Your task to perform on an android device: Open Google Maps and go to "Timeline" Image 0: 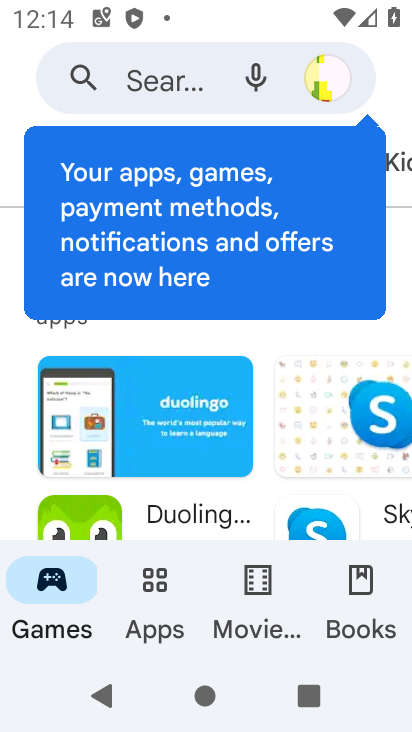
Step 0: press home button
Your task to perform on an android device: Open Google Maps and go to "Timeline" Image 1: 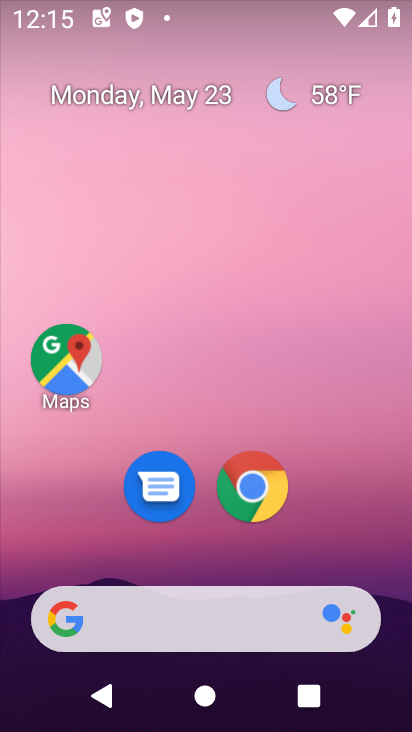
Step 1: click (68, 355)
Your task to perform on an android device: Open Google Maps and go to "Timeline" Image 2: 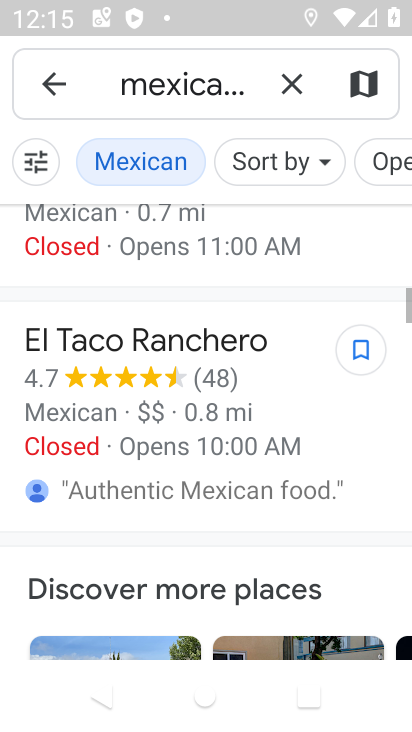
Step 2: click (291, 80)
Your task to perform on an android device: Open Google Maps and go to "Timeline" Image 3: 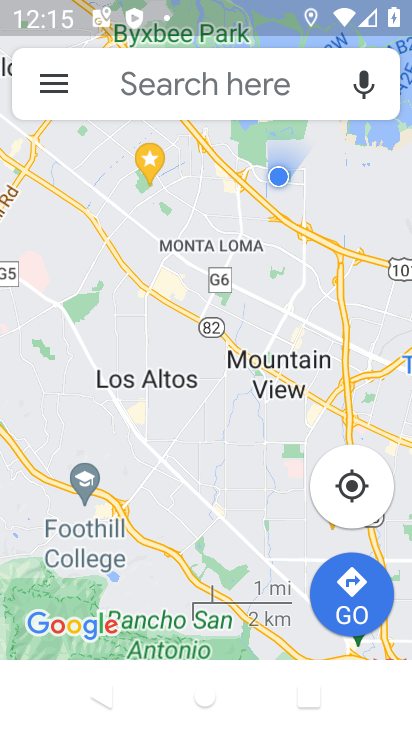
Step 3: click (50, 82)
Your task to perform on an android device: Open Google Maps and go to "Timeline" Image 4: 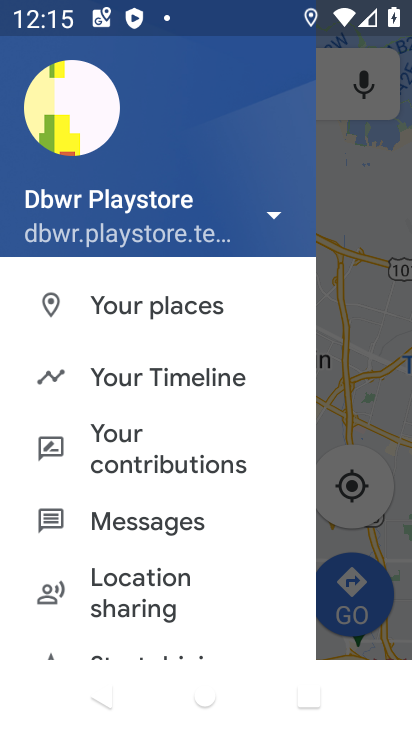
Step 4: click (177, 385)
Your task to perform on an android device: Open Google Maps and go to "Timeline" Image 5: 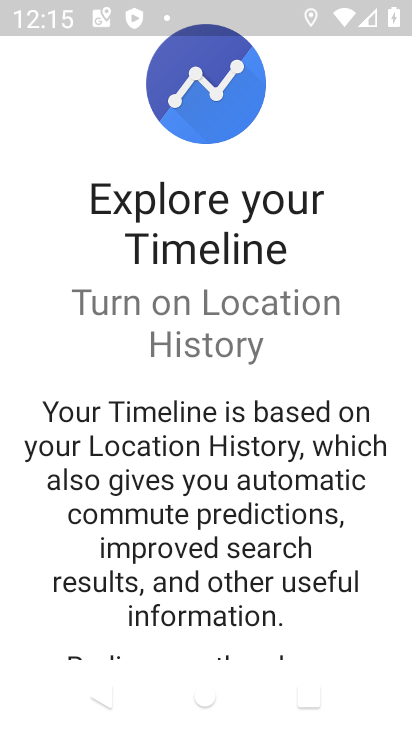
Step 5: drag from (144, 589) to (204, 99)
Your task to perform on an android device: Open Google Maps and go to "Timeline" Image 6: 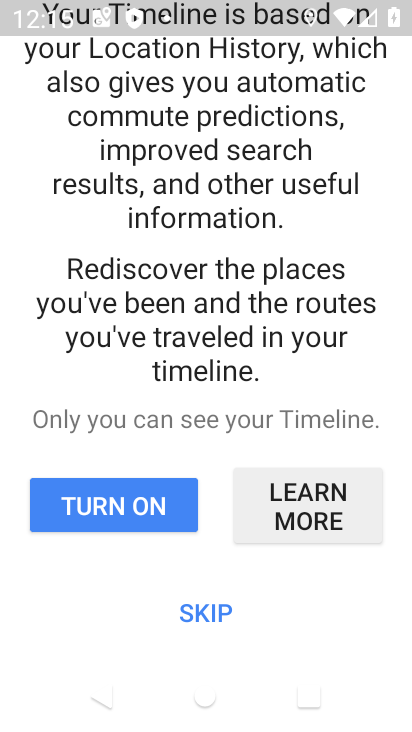
Step 6: click (201, 608)
Your task to perform on an android device: Open Google Maps and go to "Timeline" Image 7: 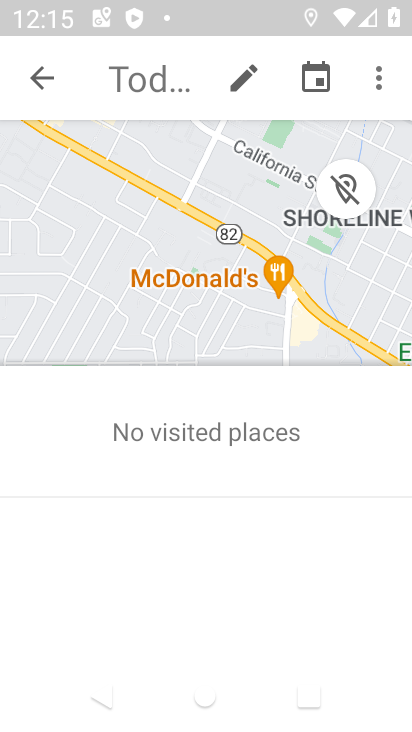
Step 7: task complete